Your task to perform on an android device: Do I have any events tomorrow? Image 0: 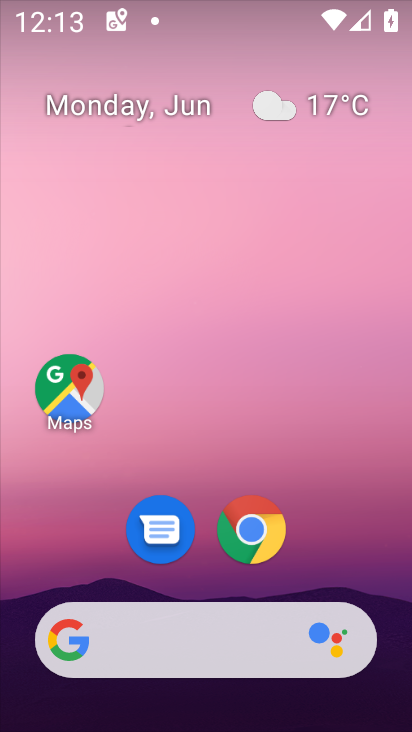
Step 0: drag from (345, 475) to (409, 240)
Your task to perform on an android device: Do I have any events tomorrow? Image 1: 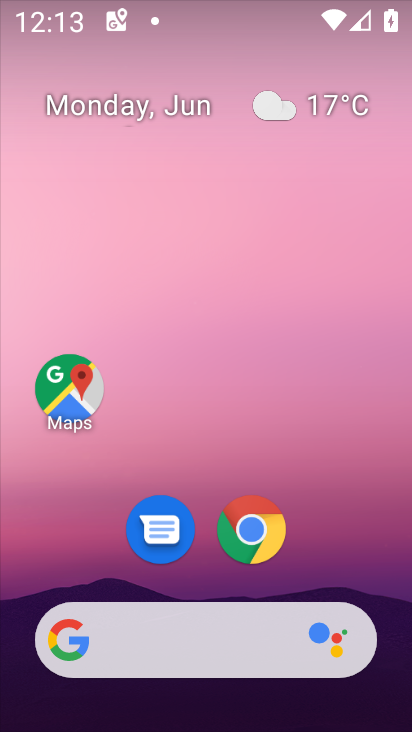
Step 1: drag from (332, 414) to (333, 7)
Your task to perform on an android device: Do I have any events tomorrow? Image 2: 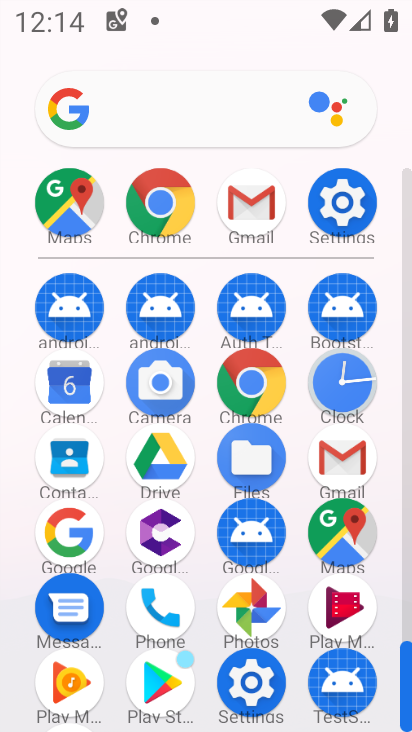
Step 2: press home button
Your task to perform on an android device: Do I have any events tomorrow? Image 3: 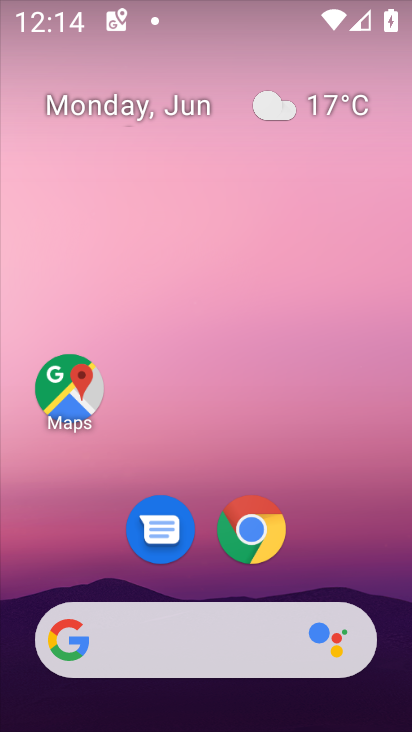
Step 3: click (332, 104)
Your task to perform on an android device: Do I have any events tomorrow? Image 4: 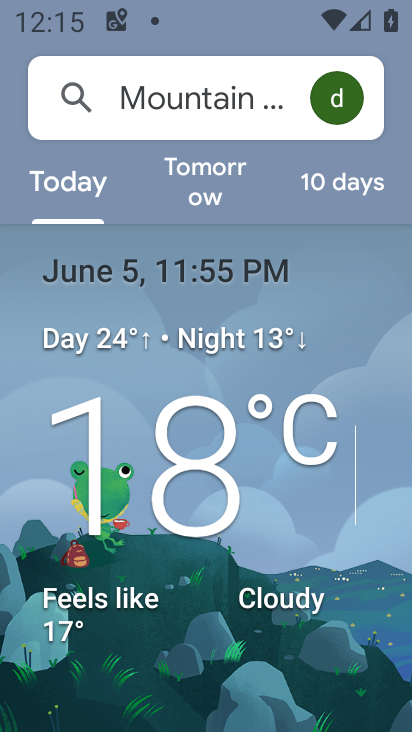
Step 4: click (210, 203)
Your task to perform on an android device: Do I have any events tomorrow? Image 5: 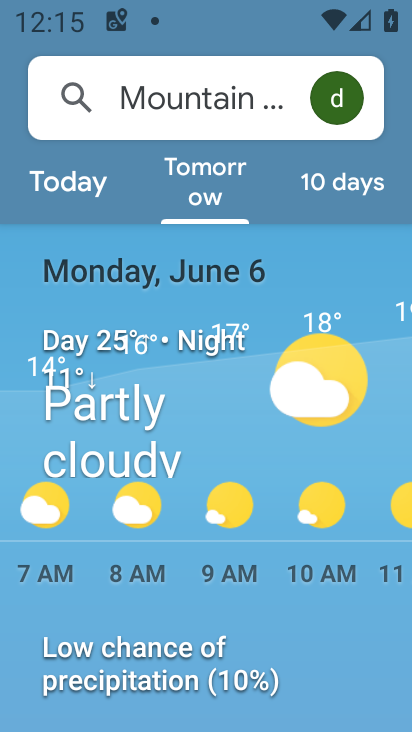
Step 5: task complete